Your task to perform on an android device: What's the weather? Image 0: 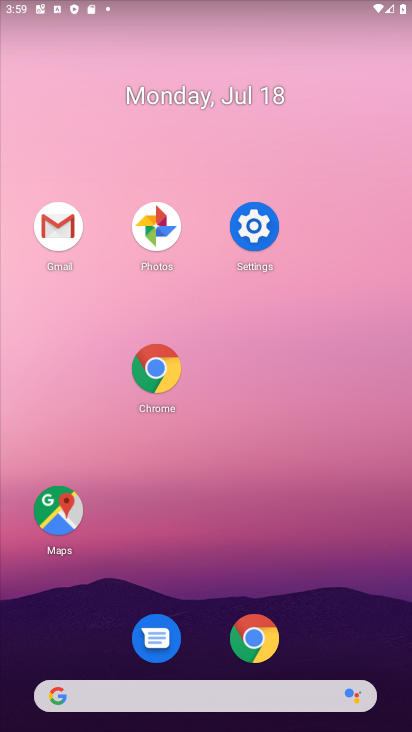
Step 0: click (168, 368)
Your task to perform on an android device: What's the weather? Image 1: 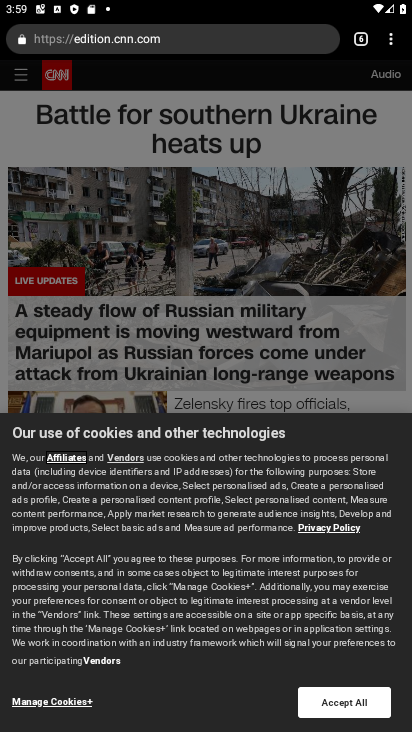
Step 1: click (363, 37)
Your task to perform on an android device: What's the weather? Image 2: 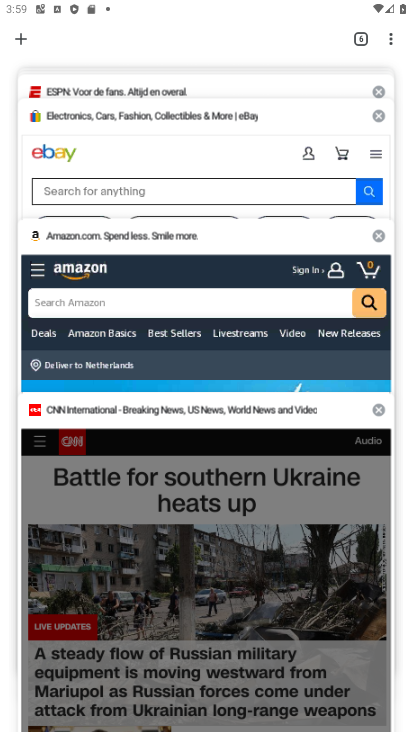
Step 2: click (7, 33)
Your task to perform on an android device: What's the weather? Image 3: 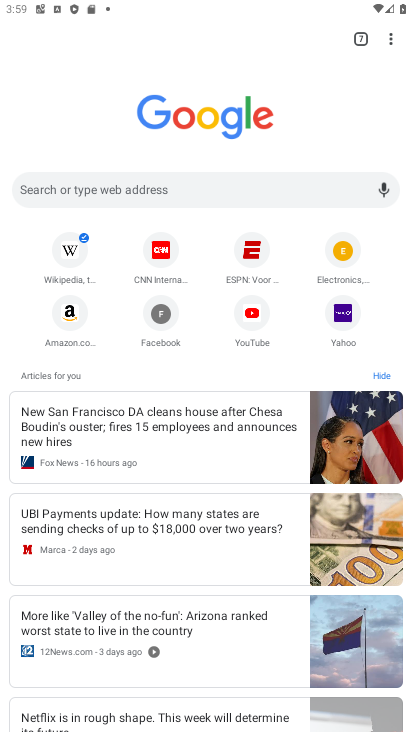
Step 3: click (195, 181)
Your task to perform on an android device: What's the weather? Image 4: 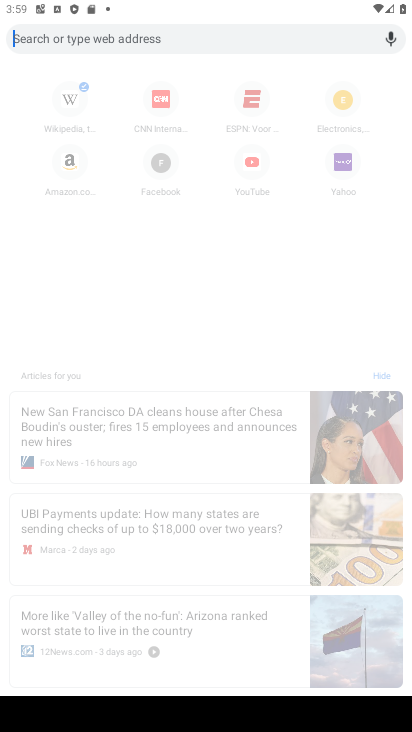
Step 4: type "weather"
Your task to perform on an android device: What's the weather? Image 5: 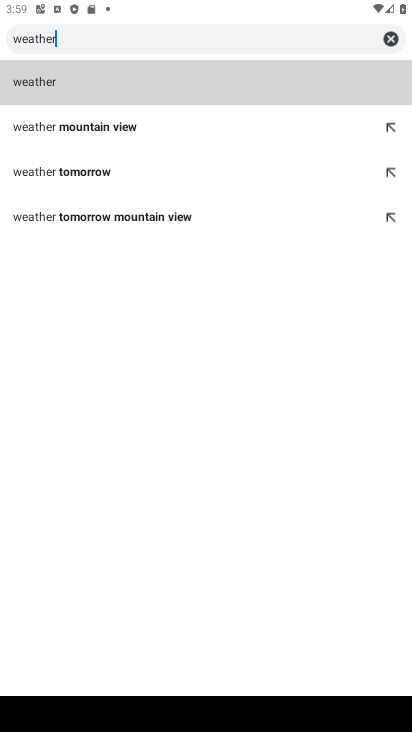
Step 5: click (46, 73)
Your task to perform on an android device: What's the weather? Image 6: 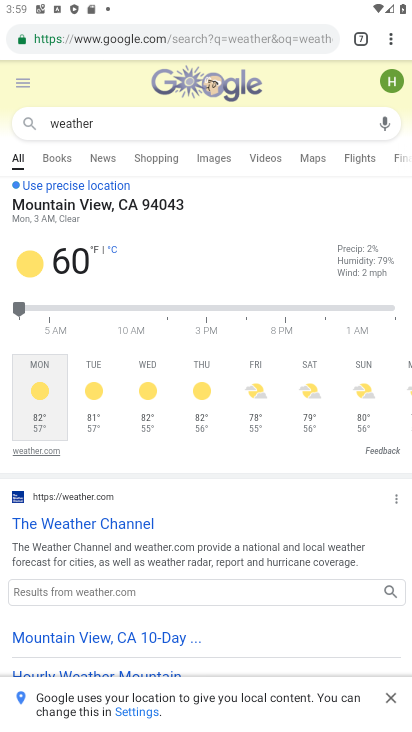
Step 6: task complete